Your task to perform on an android device: When is my next appointment? Image 0: 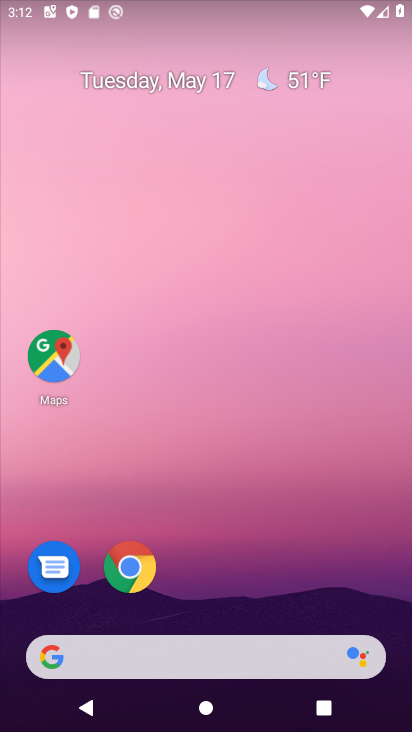
Step 0: drag from (195, 652) to (180, 83)
Your task to perform on an android device: When is my next appointment? Image 1: 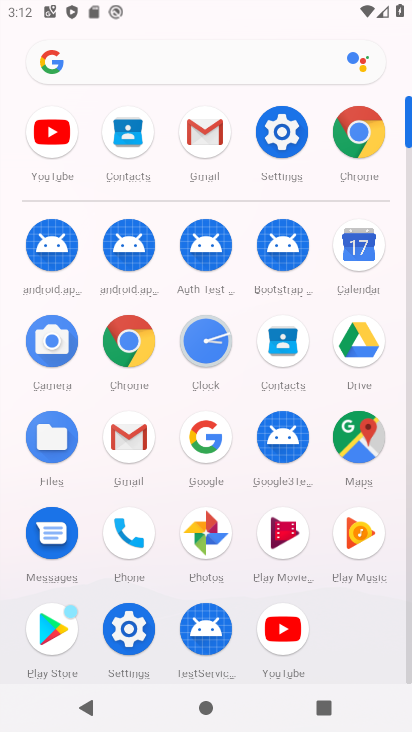
Step 1: click (358, 259)
Your task to perform on an android device: When is my next appointment? Image 2: 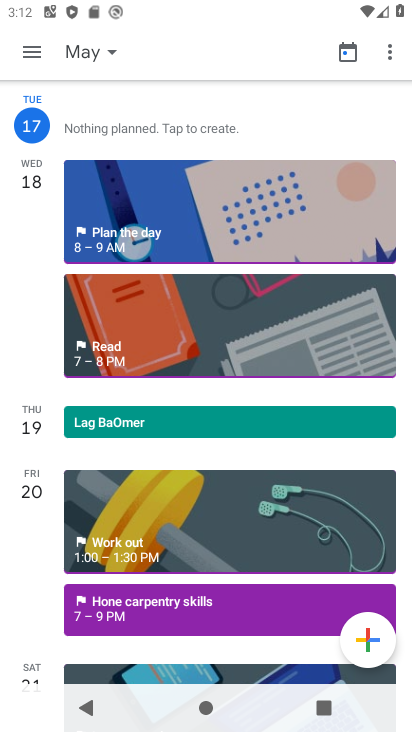
Step 2: task complete